Your task to perform on an android device: Turn on the flashlight Image 0: 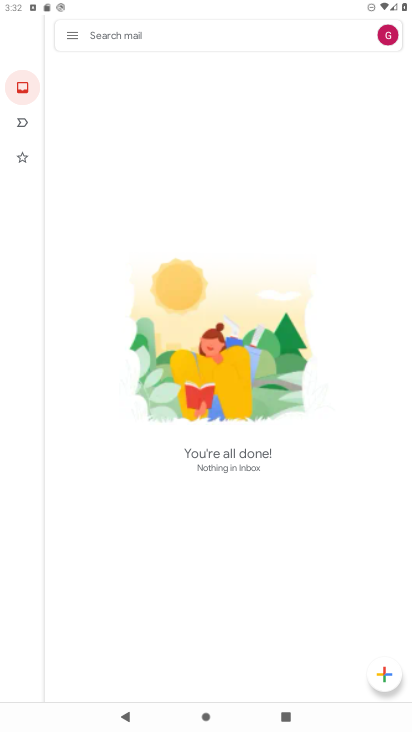
Step 0: press home button
Your task to perform on an android device: Turn on the flashlight Image 1: 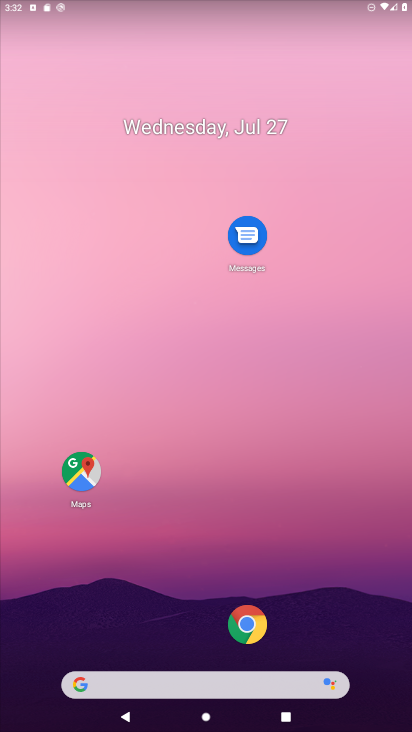
Step 1: drag from (165, 659) to (157, 181)
Your task to perform on an android device: Turn on the flashlight Image 2: 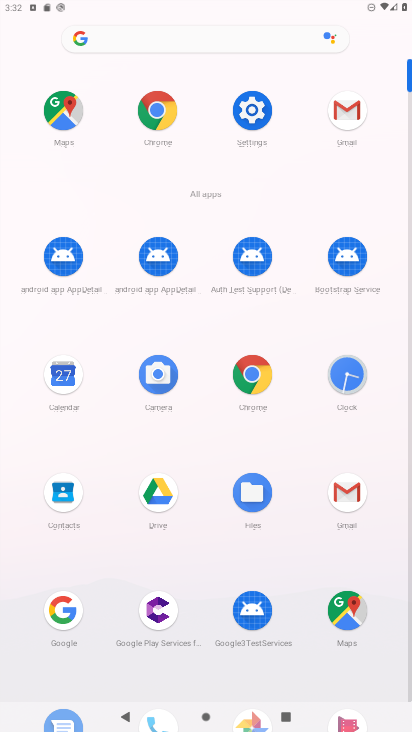
Step 2: click (265, 127)
Your task to perform on an android device: Turn on the flashlight Image 3: 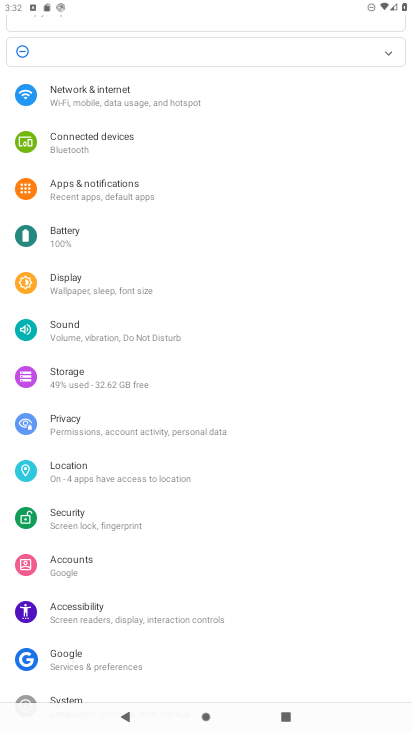
Step 3: task complete